Your task to perform on an android device: Turn on the flashlight Image 0: 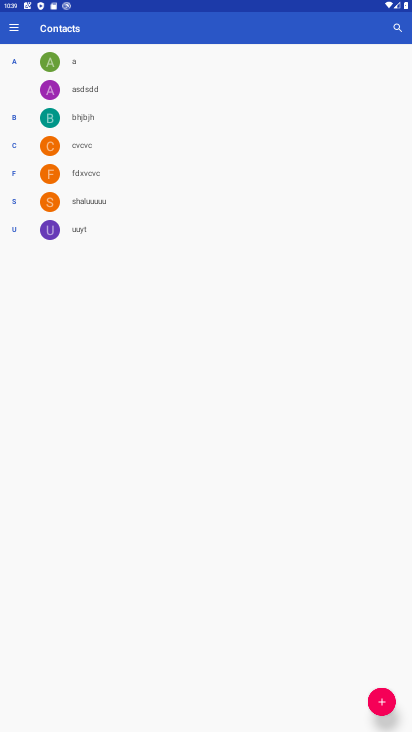
Step 0: press home button
Your task to perform on an android device: Turn on the flashlight Image 1: 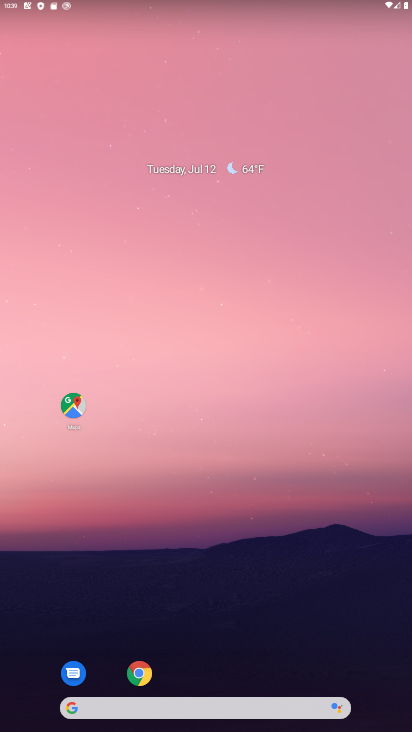
Step 1: drag from (231, 545) to (410, 31)
Your task to perform on an android device: Turn on the flashlight Image 2: 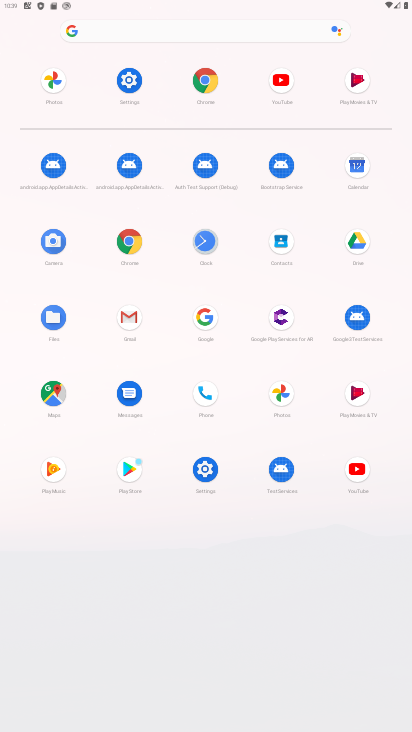
Step 2: click (136, 63)
Your task to perform on an android device: Turn on the flashlight Image 3: 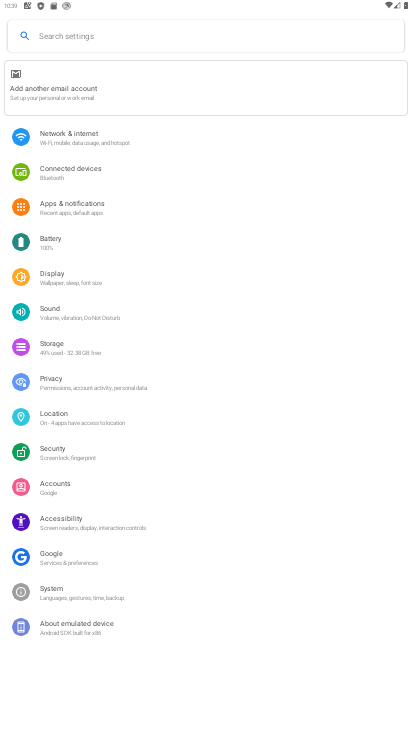
Step 3: click (225, 406)
Your task to perform on an android device: Turn on the flashlight Image 4: 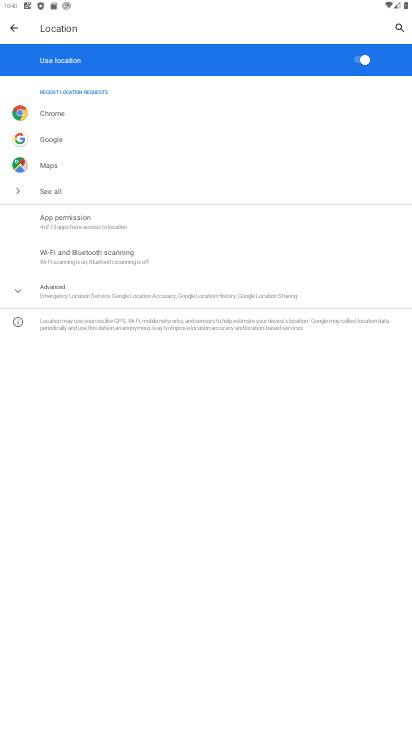
Step 4: click (19, 32)
Your task to perform on an android device: Turn on the flashlight Image 5: 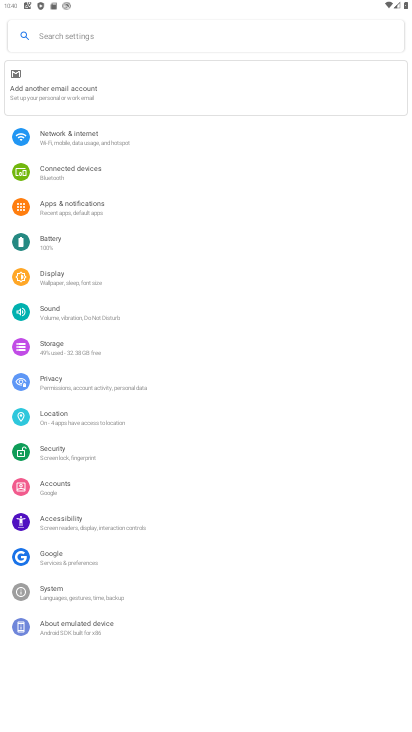
Step 5: click (76, 284)
Your task to perform on an android device: Turn on the flashlight Image 6: 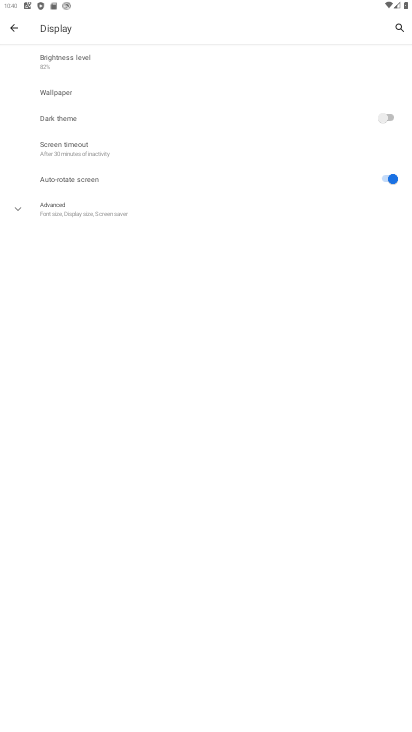
Step 6: task complete